Your task to perform on an android device: change the clock display to digital Image 0: 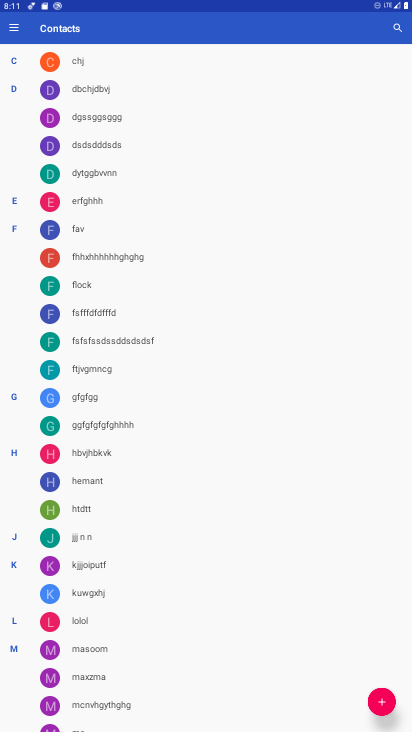
Step 0: press home button
Your task to perform on an android device: change the clock display to digital Image 1: 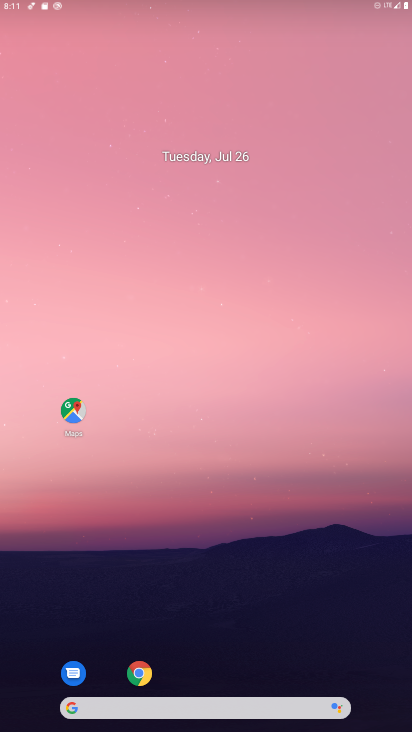
Step 1: drag from (392, 673) to (197, 14)
Your task to perform on an android device: change the clock display to digital Image 2: 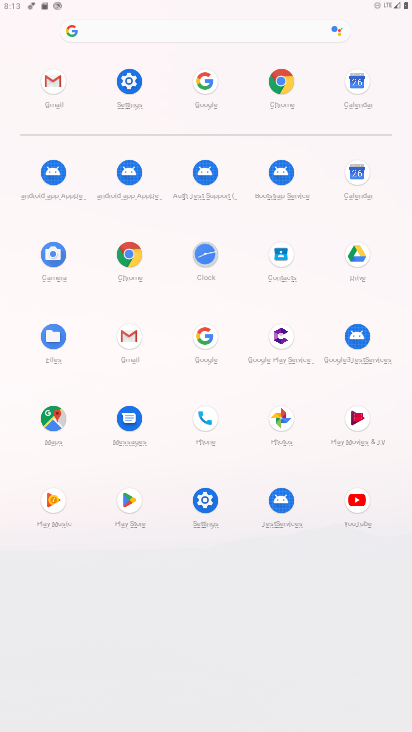
Step 2: click (206, 260)
Your task to perform on an android device: change the clock display to digital Image 3: 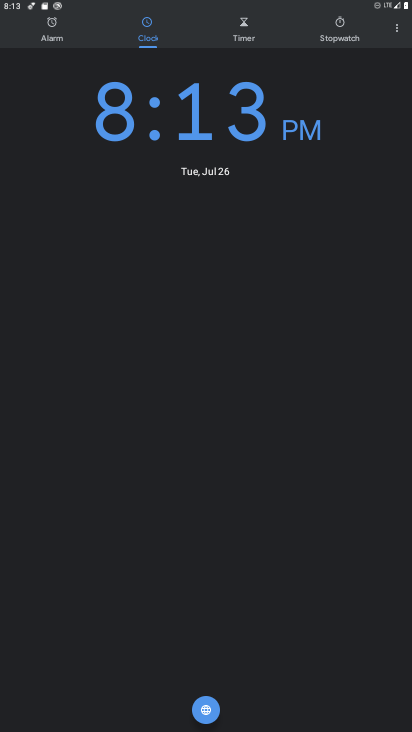
Step 3: click (393, 32)
Your task to perform on an android device: change the clock display to digital Image 4: 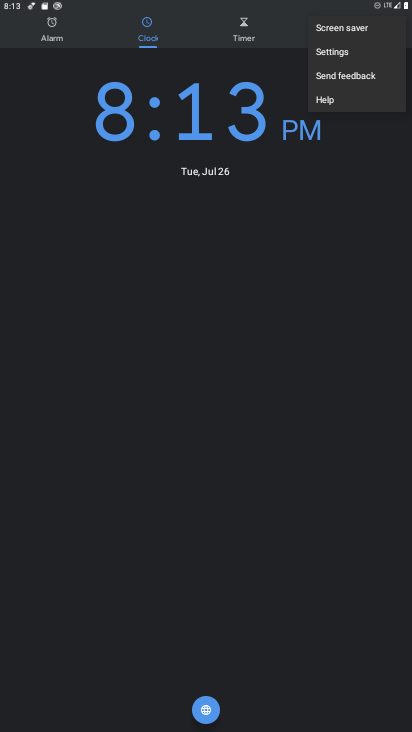
Step 4: click (325, 46)
Your task to perform on an android device: change the clock display to digital Image 5: 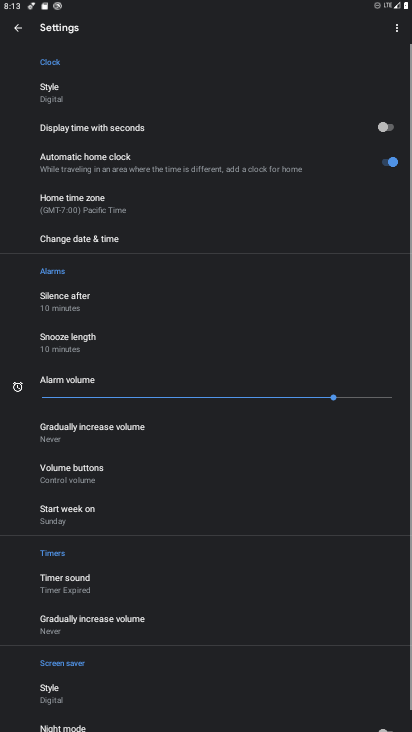
Step 5: click (70, 92)
Your task to perform on an android device: change the clock display to digital Image 6: 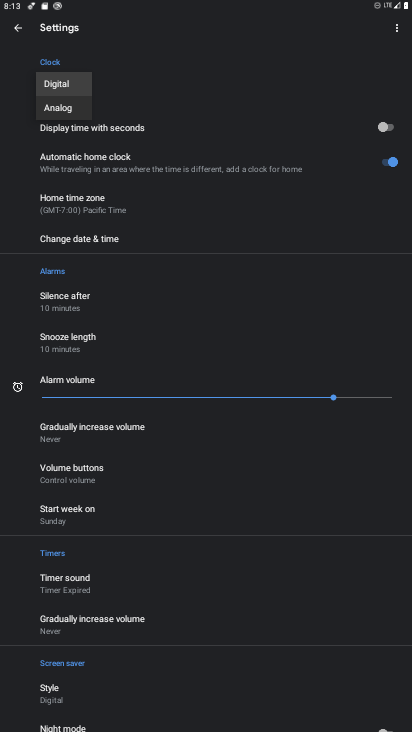
Step 6: click (70, 85)
Your task to perform on an android device: change the clock display to digital Image 7: 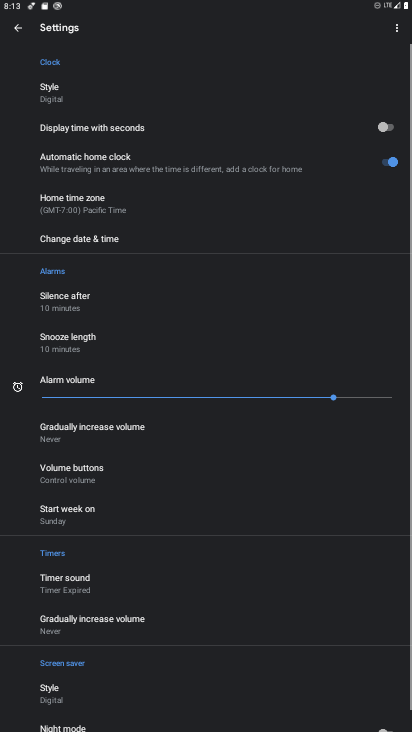
Step 7: task complete